Your task to perform on an android device: See recent photos Image 0: 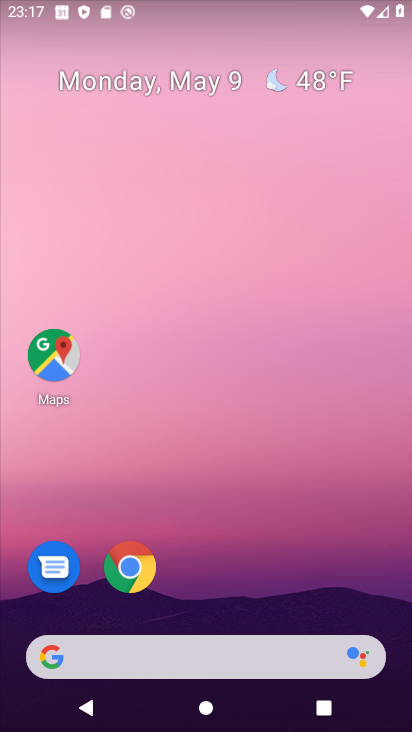
Step 0: drag from (243, 563) to (197, 5)
Your task to perform on an android device: See recent photos Image 1: 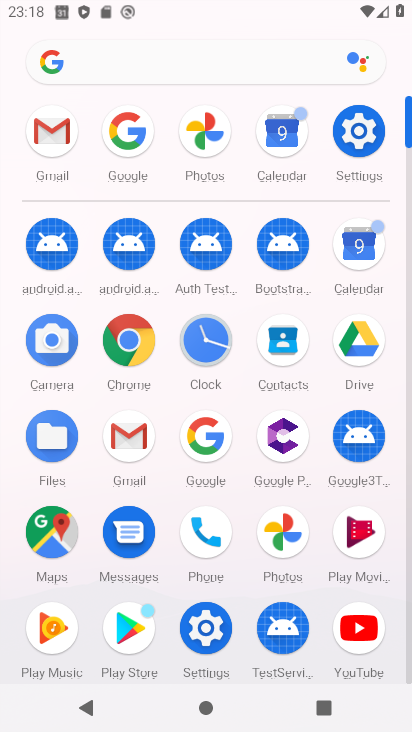
Step 1: click (205, 132)
Your task to perform on an android device: See recent photos Image 2: 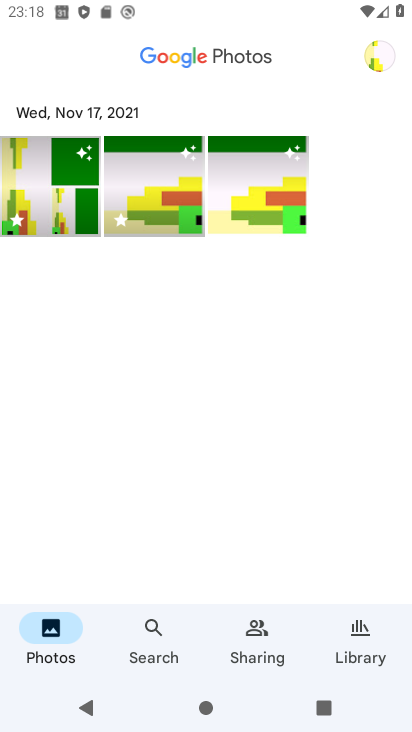
Step 2: click (104, 204)
Your task to perform on an android device: See recent photos Image 3: 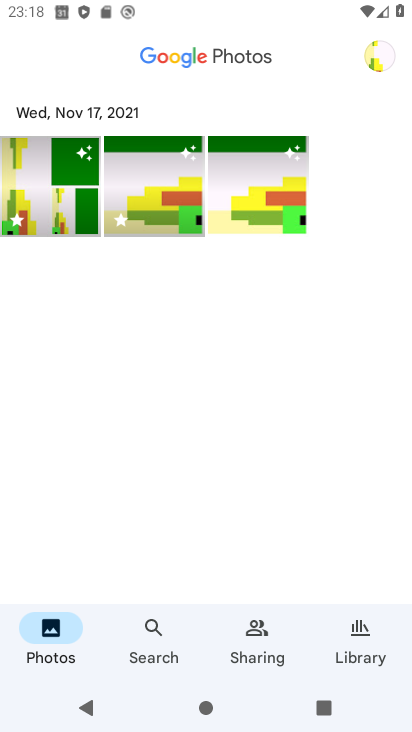
Step 3: click (122, 199)
Your task to perform on an android device: See recent photos Image 4: 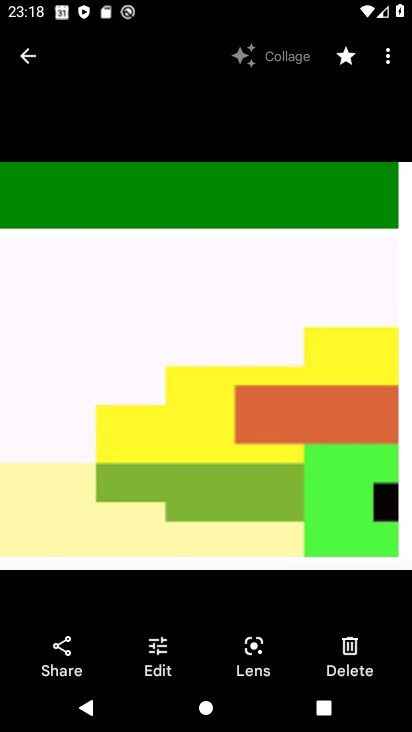
Step 4: task complete